Your task to perform on an android device: What's the weather today? Image 0: 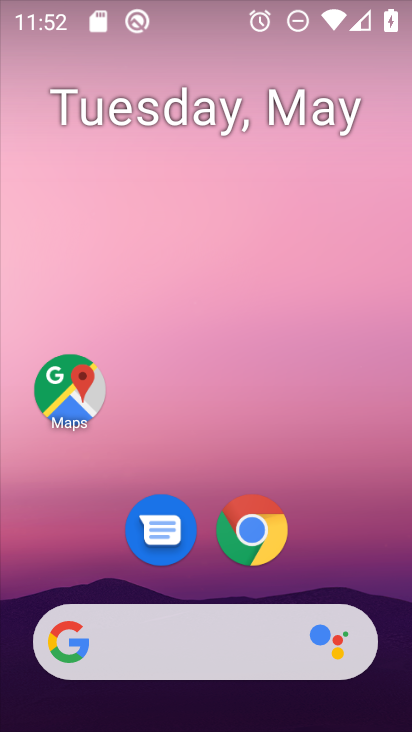
Step 0: click (247, 536)
Your task to perform on an android device: What's the weather today? Image 1: 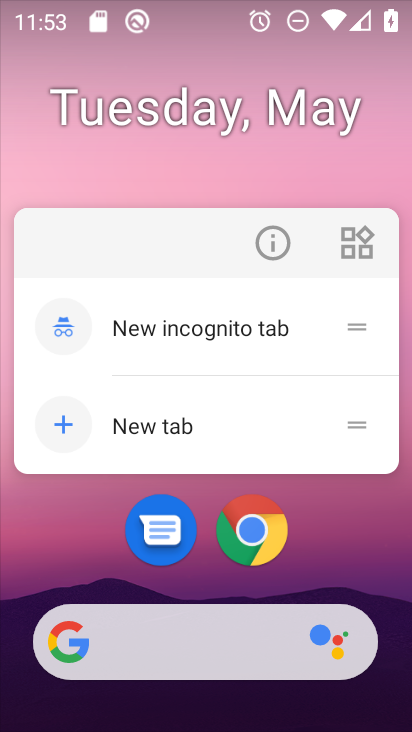
Step 1: click (250, 544)
Your task to perform on an android device: What's the weather today? Image 2: 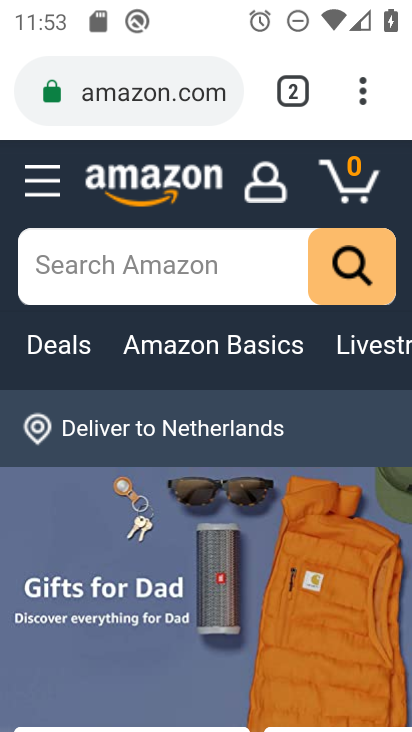
Step 2: click (153, 94)
Your task to perform on an android device: What's the weather today? Image 3: 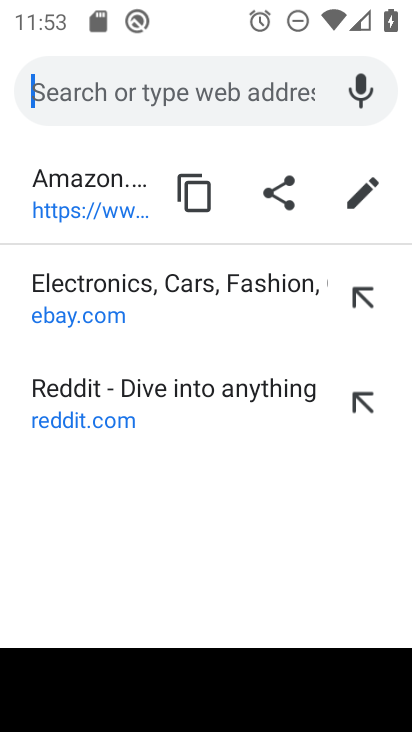
Step 3: type "weather"
Your task to perform on an android device: What's the weather today? Image 4: 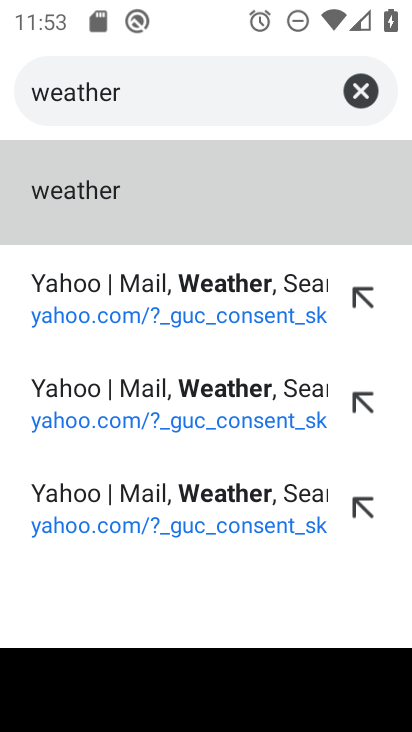
Step 4: click (110, 178)
Your task to perform on an android device: What's the weather today? Image 5: 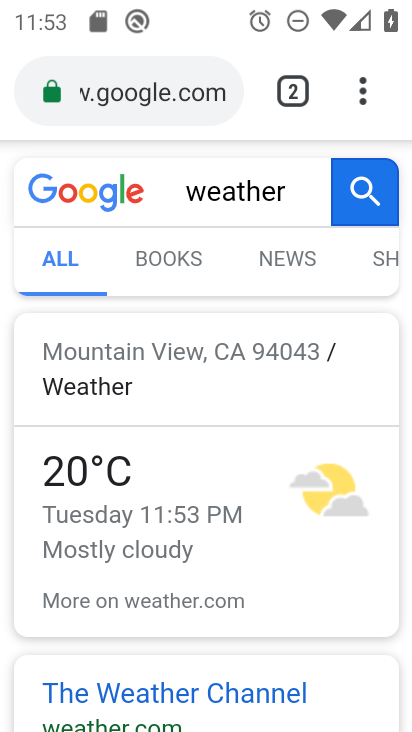
Step 5: task complete